Your task to perform on an android device: Go to eBay Image 0: 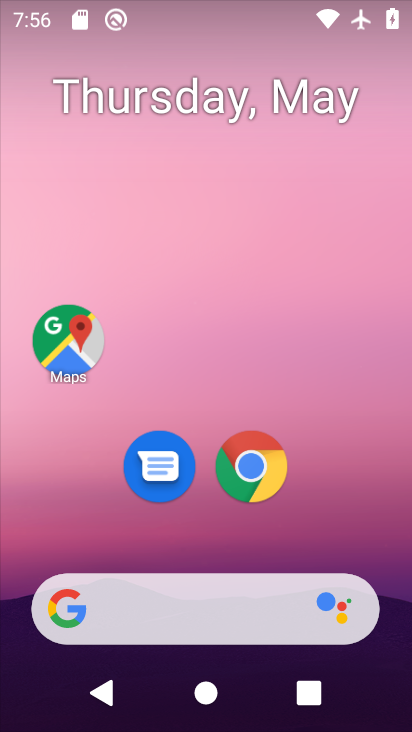
Step 0: click (233, 593)
Your task to perform on an android device: Go to eBay Image 1: 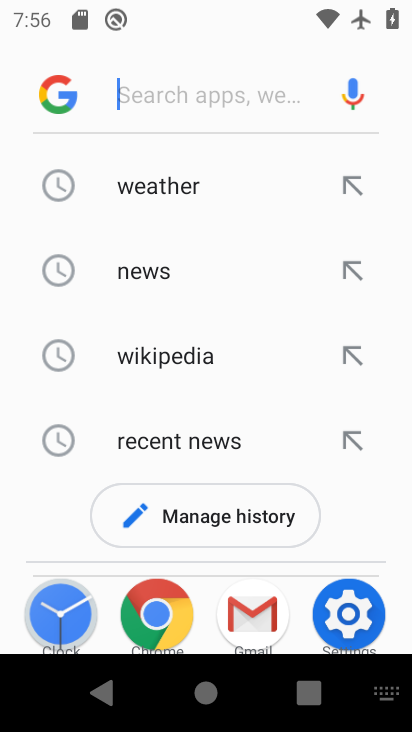
Step 1: type "ebay.com"
Your task to perform on an android device: Go to eBay Image 2: 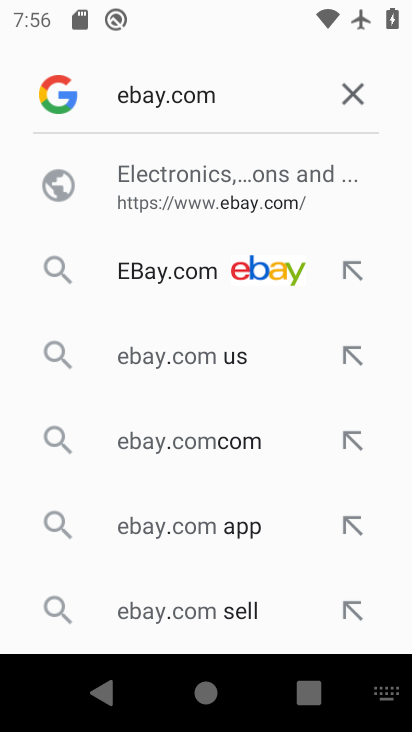
Step 2: click (220, 175)
Your task to perform on an android device: Go to eBay Image 3: 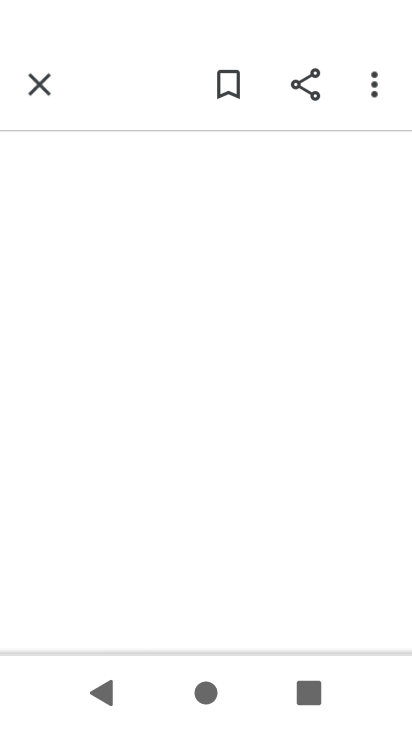
Step 3: task complete